Your task to perform on an android device: Open Chrome and go to settings Image 0: 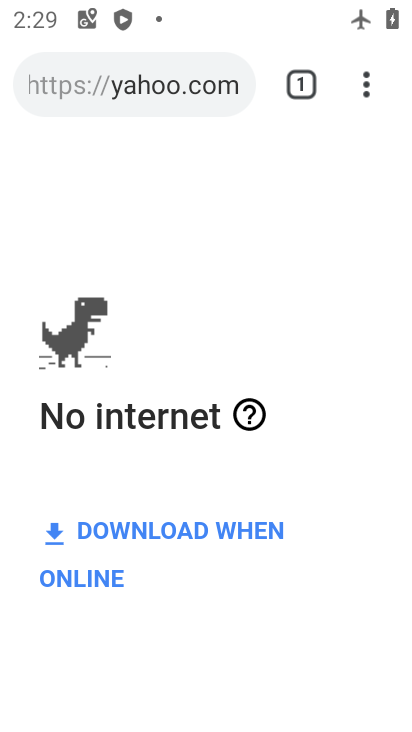
Step 0: press home button
Your task to perform on an android device: Open Chrome and go to settings Image 1: 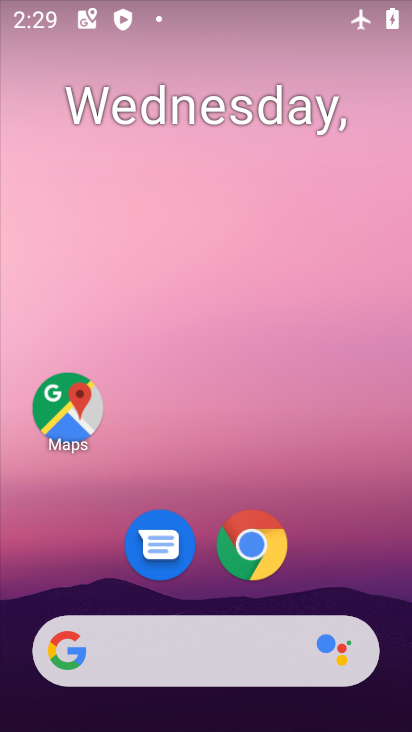
Step 1: drag from (338, 443) to (296, 76)
Your task to perform on an android device: Open Chrome and go to settings Image 2: 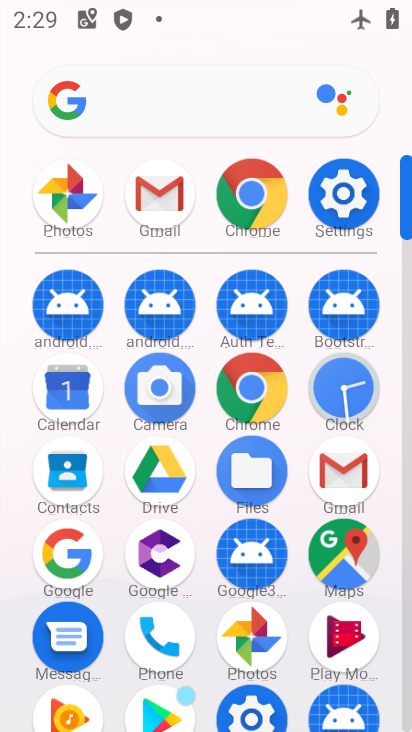
Step 2: click (273, 196)
Your task to perform on an android device: Open Chrome and go to settings Image 3: 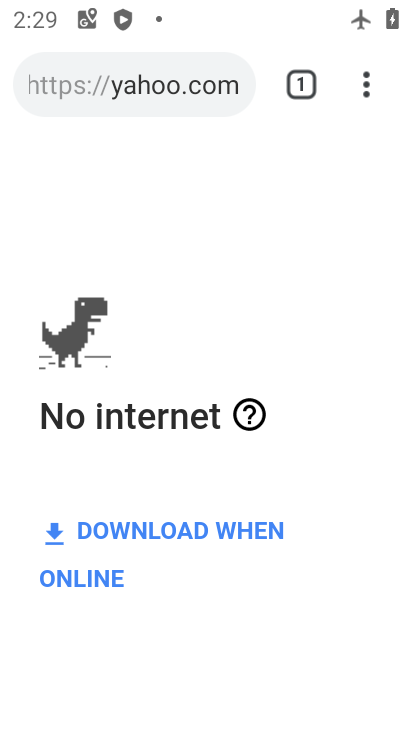
Step 3: task complete